Your task to perform on an android device: turn on sleep mode Image 0: 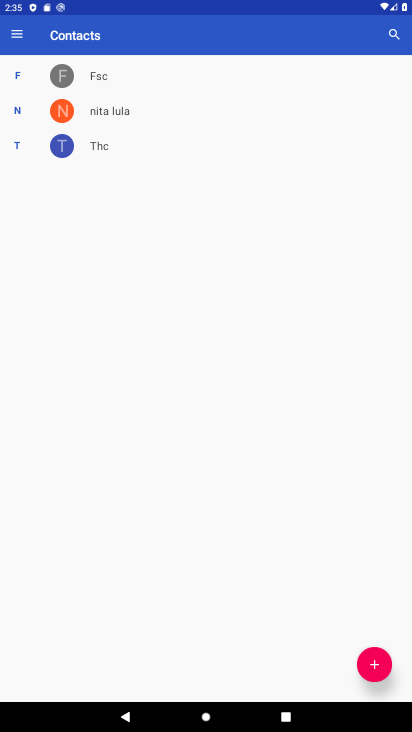
Step 0: drag from (226, 643) to (275, 241)
Your task to perform on an android device: turn on sleep mode Image 1: 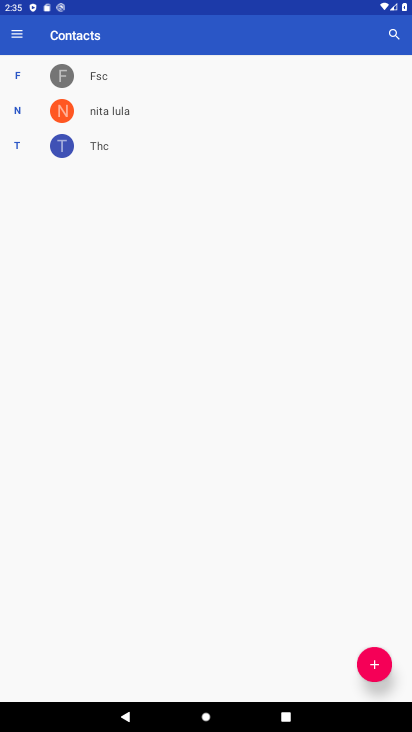
Step 1: press home button
Your task to perform on an android device: turn on sleep mode Image 2: 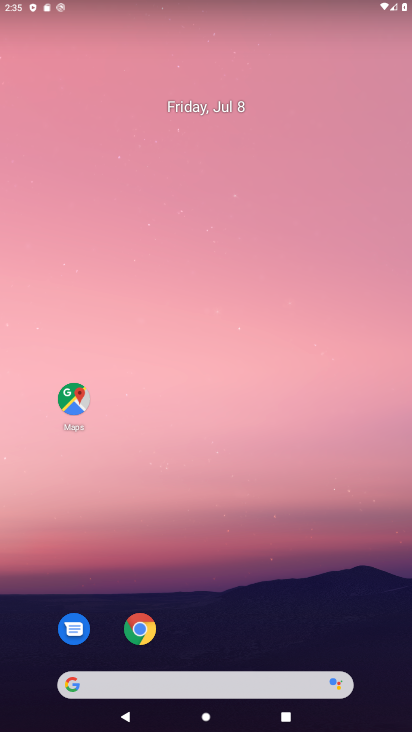
Step 2: drag from (214, 586) to (290, 99)
Your task to perform on an android device: turn on sleep mode Image 3: 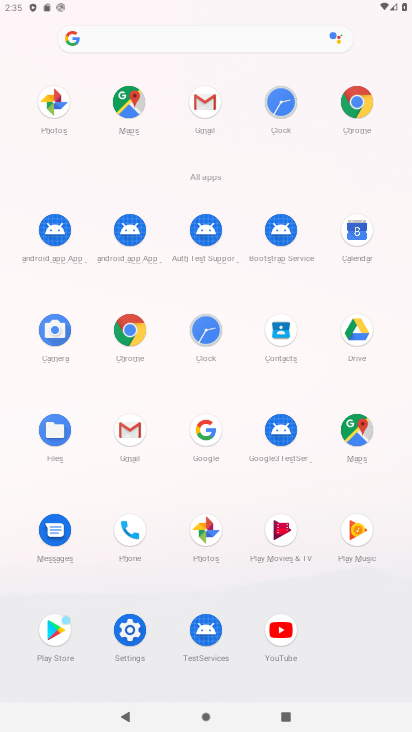
Step 3: click (131, 623)
Your task to perform on an android device: turn on sleep mode Image 4: 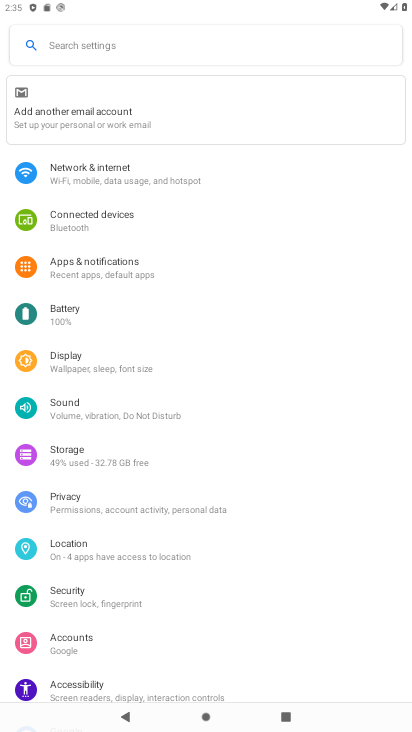
Step 4: click (84, 363)
Your task to perform on an android device: turn on sleep mode Image 5: 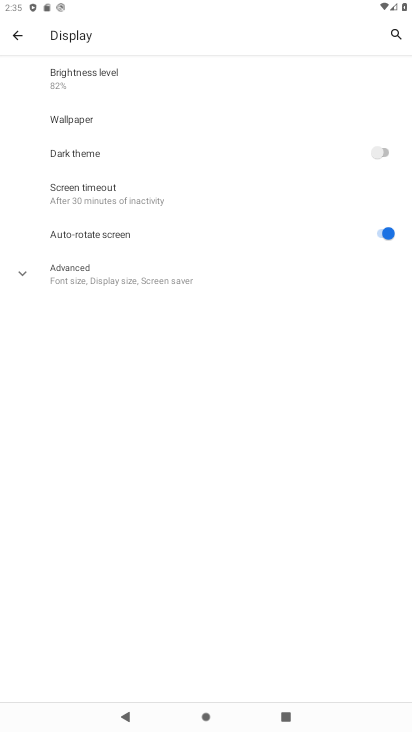
Step 5: click (135, 287)
Your task to perform on an android device: turn on sleep mode Image 6: 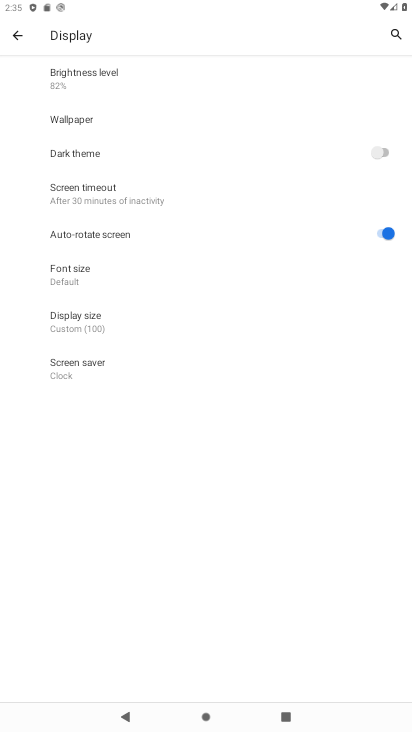
Step 6: task complete